Your task to perform on an android device: create a new album in the google photos Image 0: 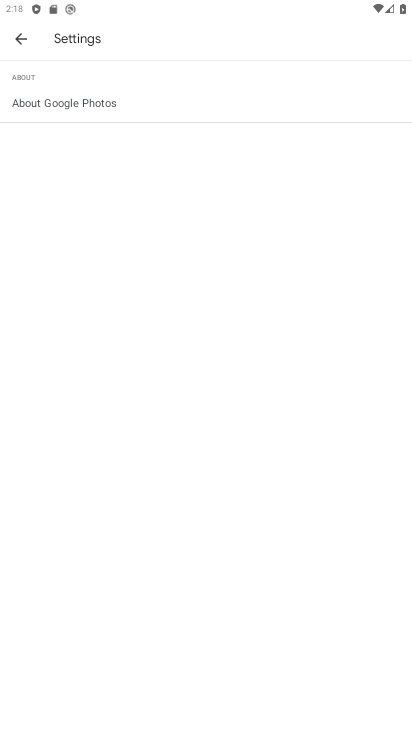
Step 0: press home button
Your task to perform on an android device: create a new album in the google photos Image 1: 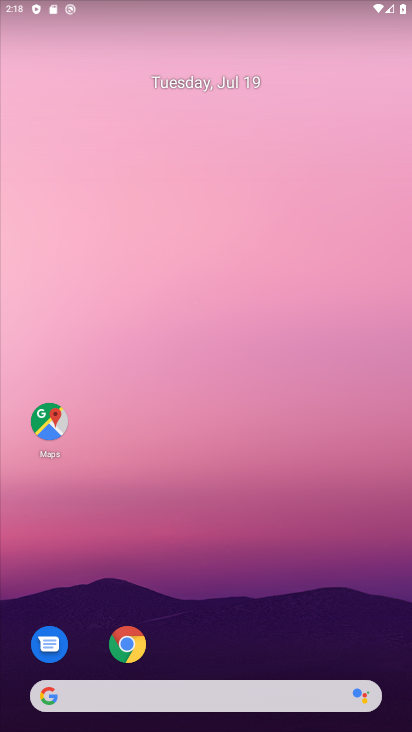
Step 1: drag from (252, 622) to (224, 49)
Your task to perform on an android device: create a new album in the google photos Image 2: 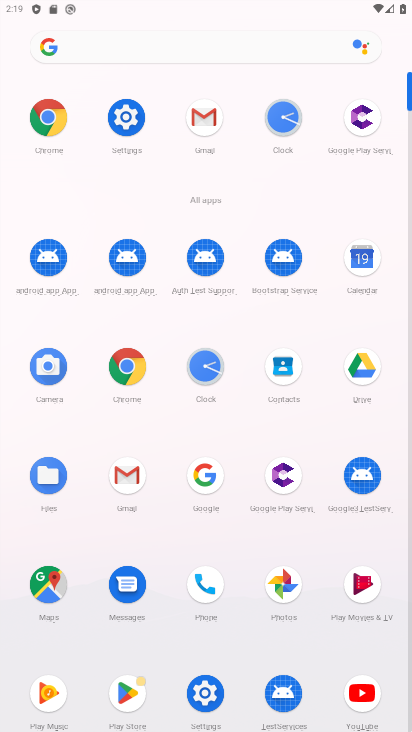
Step 2: click (286, 592)
Your task to perform on an android device: create a new album in the google photos Image 3: 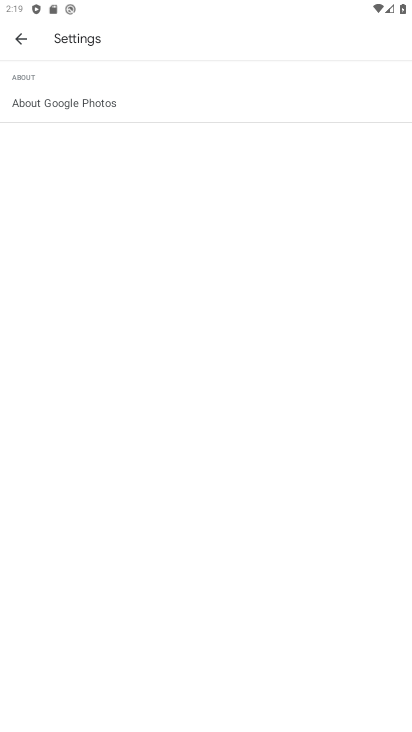
Step 3: click (23, 37)
Your task to perform on an android device: create a new album in the google photos Image 4: 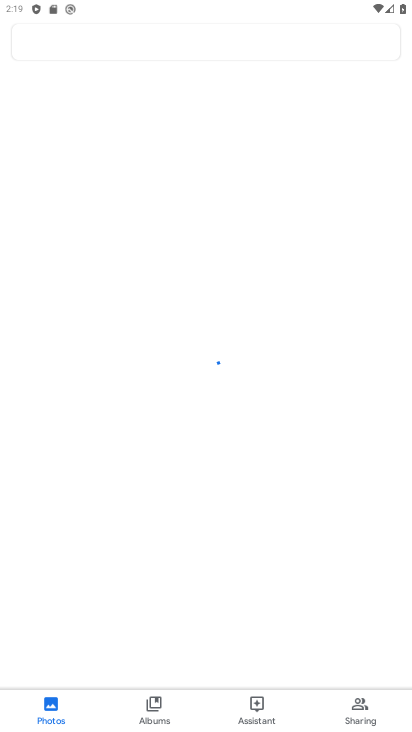
Step 4: click (154, 706)
Your task to perform on an android device: create a new album in the google photos Image 5: 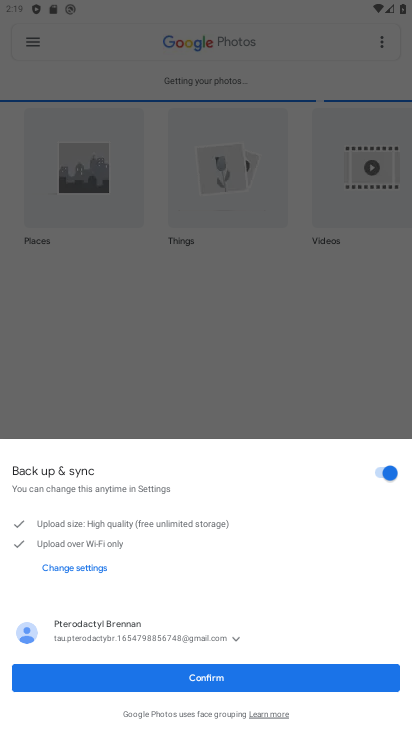
Step 5: click (185, 681)
Your task to perform on an android device: create a new album in the google photos Image 6: 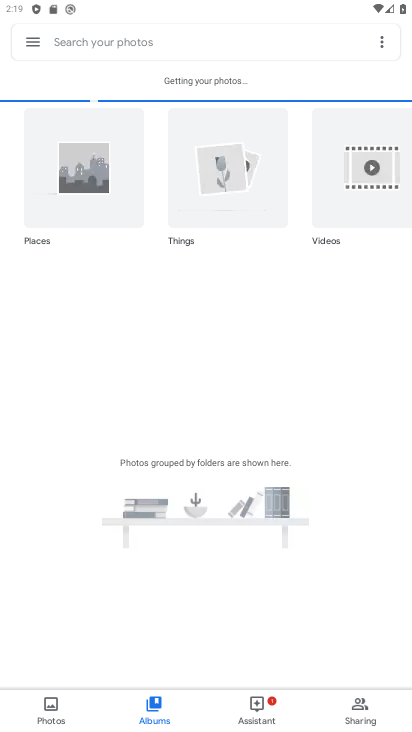
Step 6: click (185, 681)
Your task to perform on an android device: create a new album in the google photos Image 7: 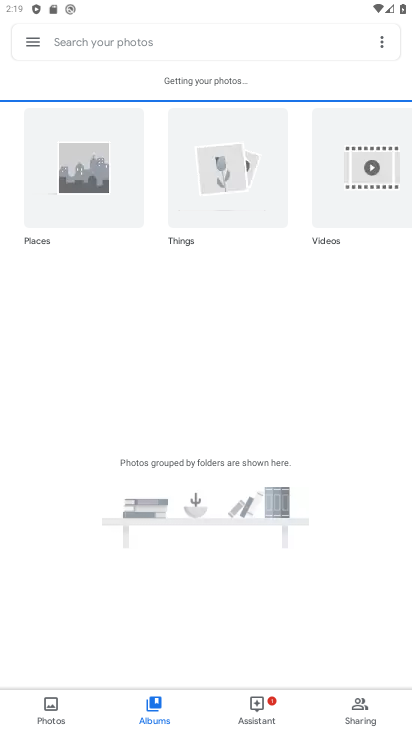
Step 7: click (382, 39)
Your task to perform on an android device: create a new album in the google photos Image 8: 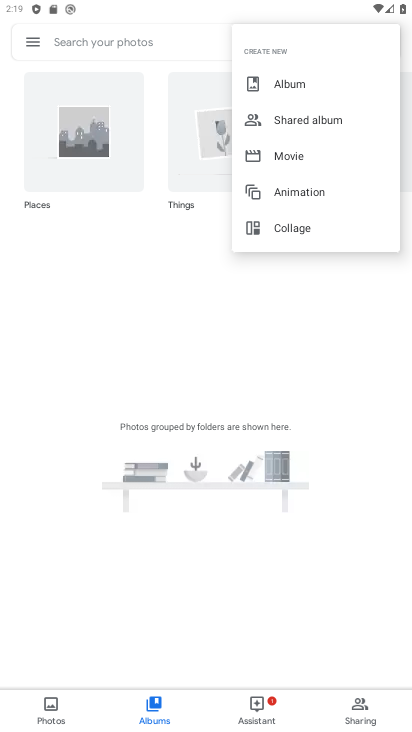
Step 8: click (318, 87)
Your task to perform on an android device: create a new album in the google photos Image 9: 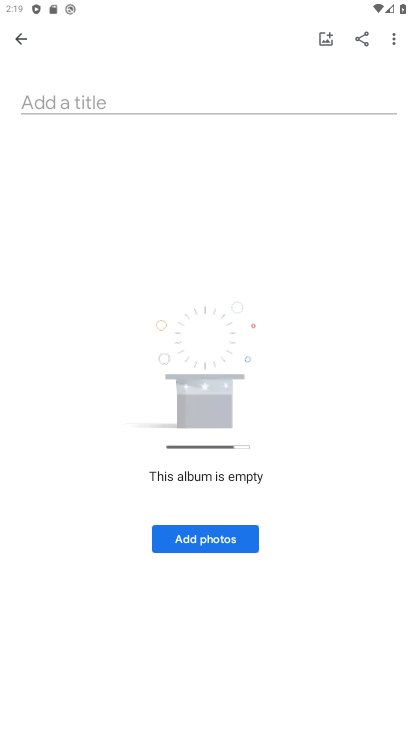
Step 9: click (97, 115)
Your task to perform on an android device: create a new album in the google photos Image 10: 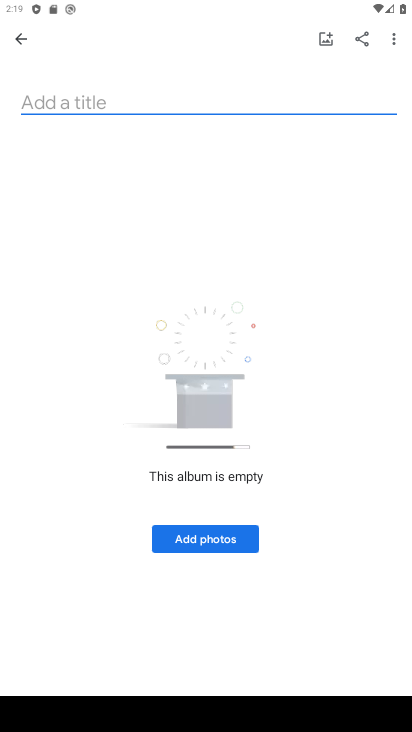
Step 10: type "bhjn"
Your task to perform on an android device: create a new album in the google photos Image 11: 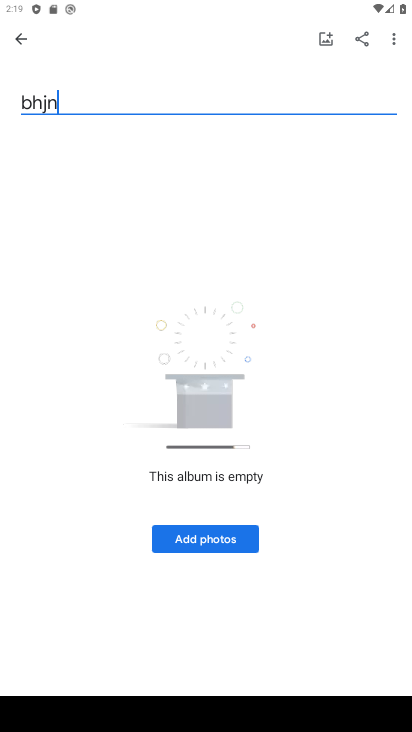
Step 11: click (222, 541)
Your task to perform on an android device: create a new album in the google photos Image 12: 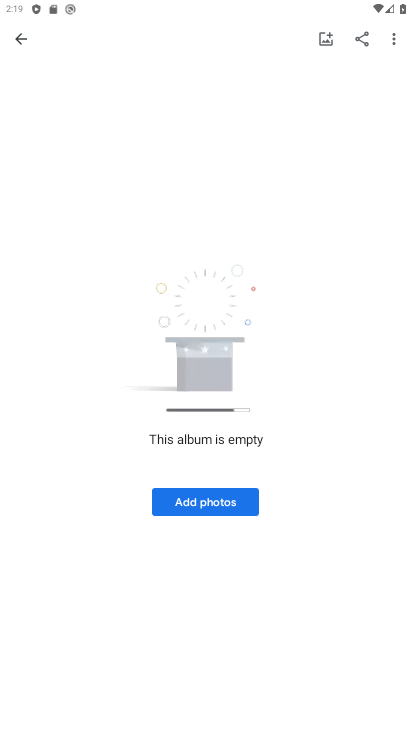
Step 12: click (217, 494)
Your task to perform on an android device: create a new album in the google photos Image 13: 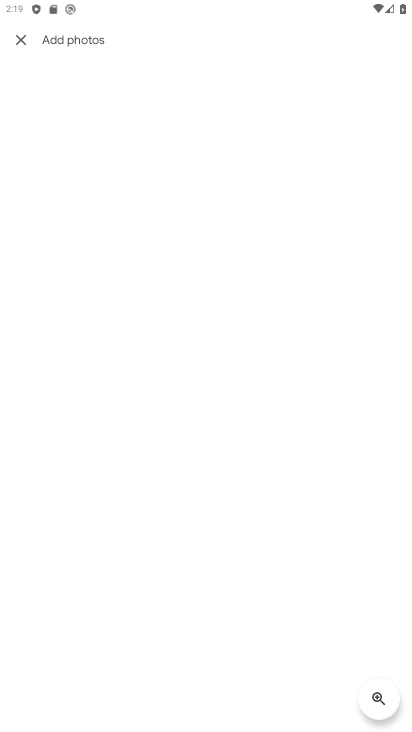
Step 13: task complete